Your task to perform on an android device: Go to wifi settings Image 0: 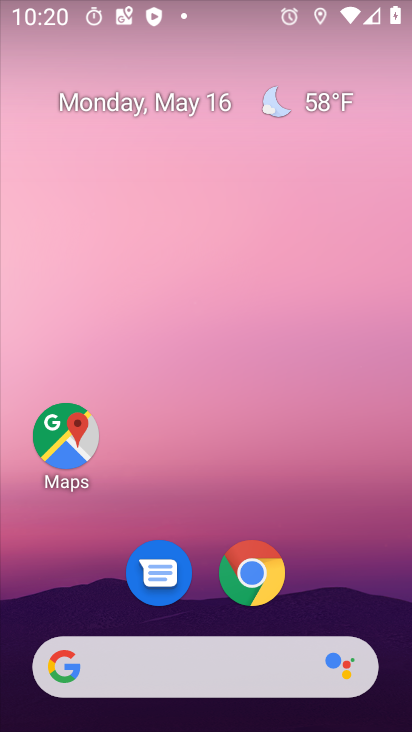
Step 0: drag from (368, 625) to (283, 189)
Your task to perform on an android device: Go to wifi settings Image 1: 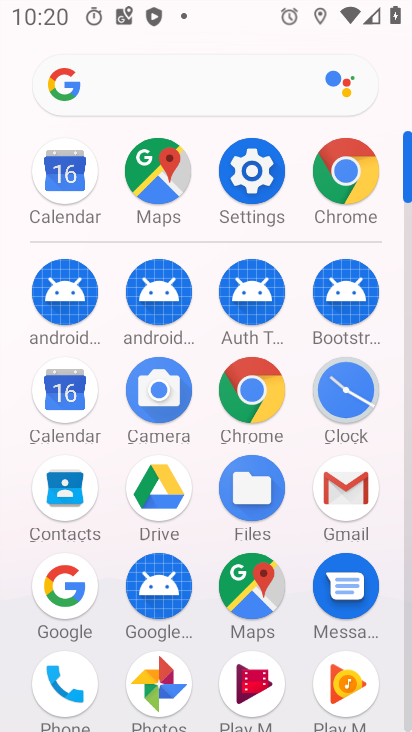
Step 1: click (248, 181)
Your task to perform on an android device: Go to wifi settings Image 2: 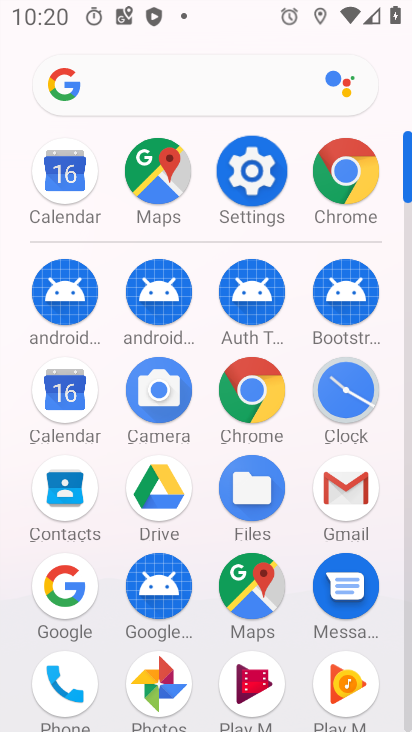
Step 2: click (248, 181)
Your task to perform on an android device: Go to wifi settings Image 3: 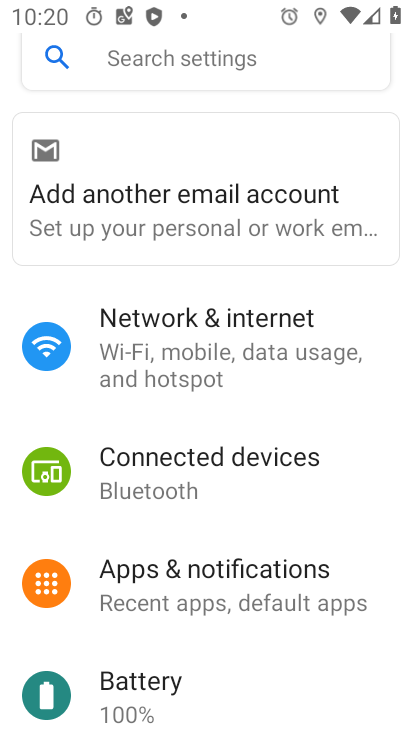
Step 3: click (207, 345)
Your task to perform on an android device: Go to wifi settings Image 4: 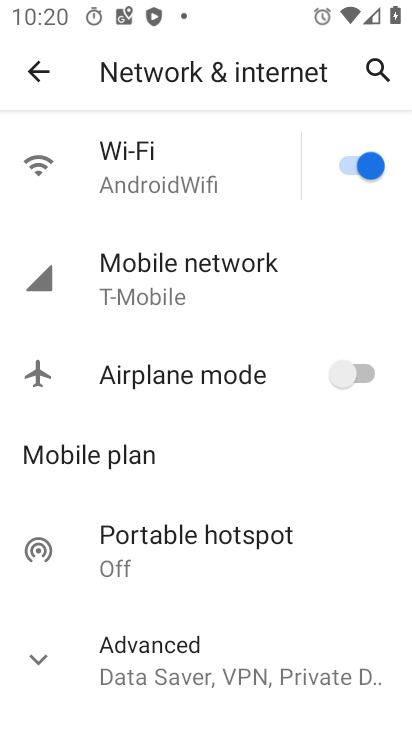
Step 4: click (373, 175)
Your task to perform on an android device: Go to wifi settings Image 5: 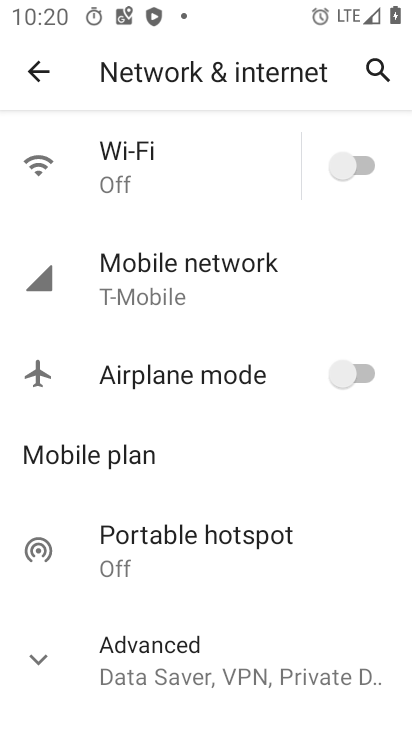
Step 5: click (348, 166)
Your task to perform on an android device: Go to wifi settings Image 6: 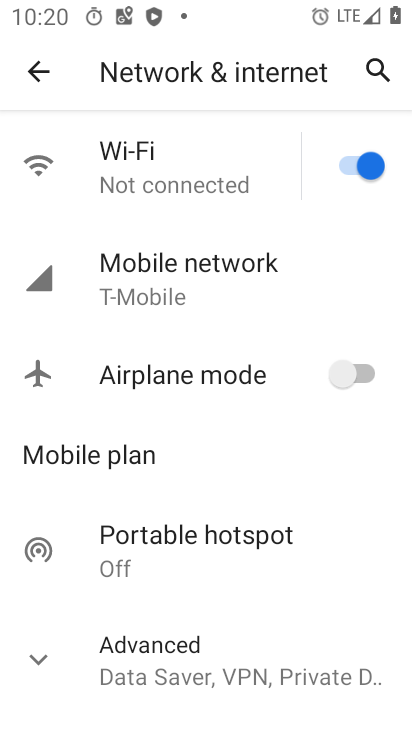
Step 6: task complete